Your task to perform on an android device: Open internet settings Image 0: 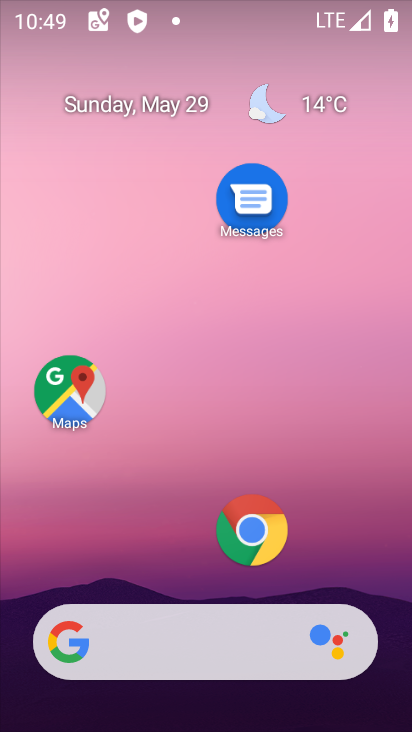
Step 0: drag from (205, 613) to (268, 1)
Your task to perform on an android device: Open internet settings Image 1: 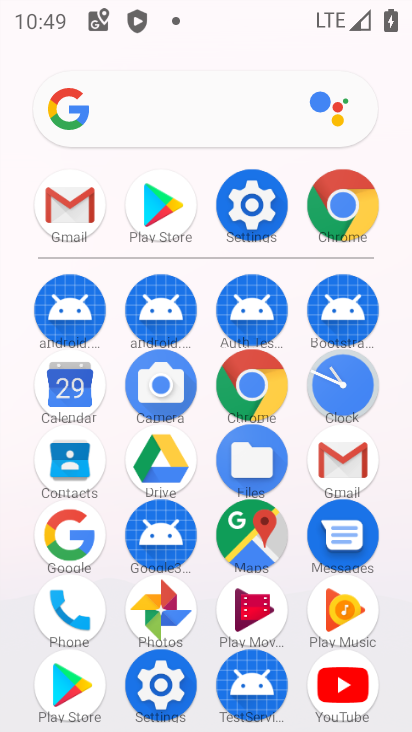
Step 1: click (263, 209)
Your task to perform on an android device: Open internet settings Image 2: 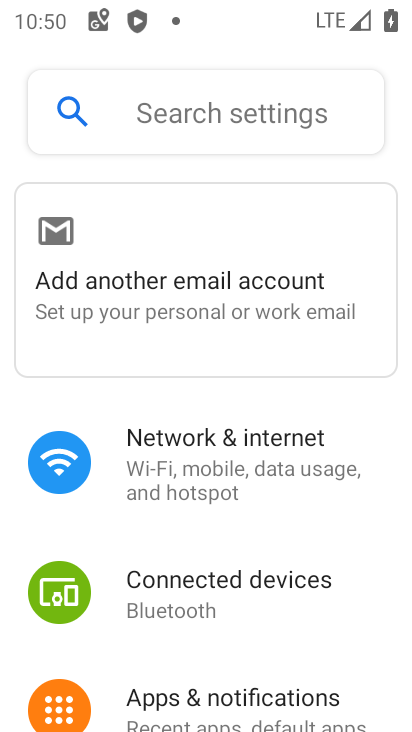
Step 2: click (235, 446)
Your task to perform on an android device: Open internet settings Image 3: 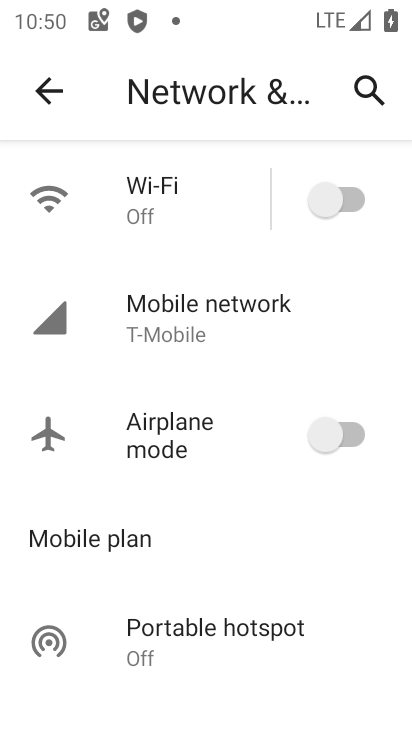
Step 3: task complete